Your task to perform on an android device: Go to Wikipedia Image 0: 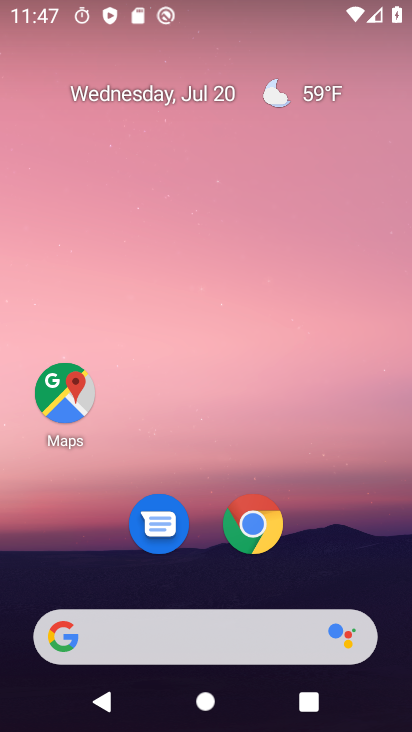
Step 0: press home button
Your task to perform on an android device: Go to Wikipedia Image 1: 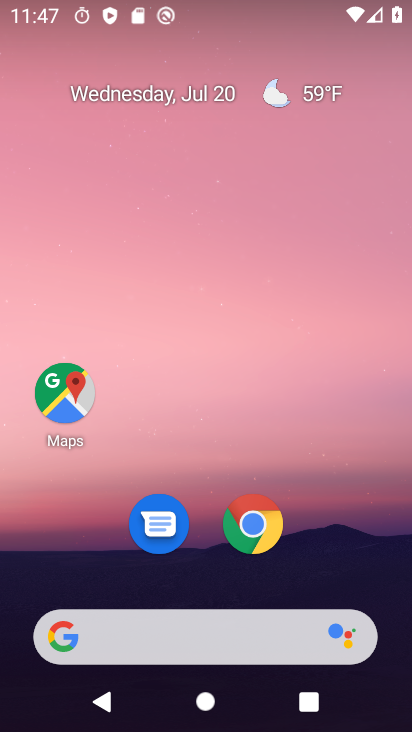
Step 1: press home button
Your task to perform on an android device: Go to Wikipedia Image 2: 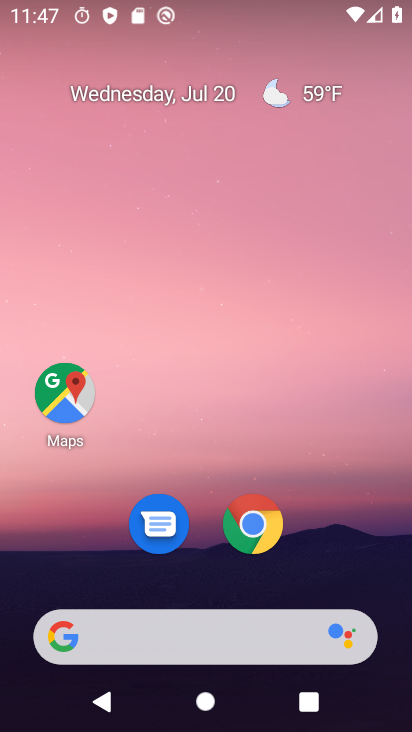
Step 2: click (250, 532)
Your task to perform on an android device: Go to Wikipedia Image 3: 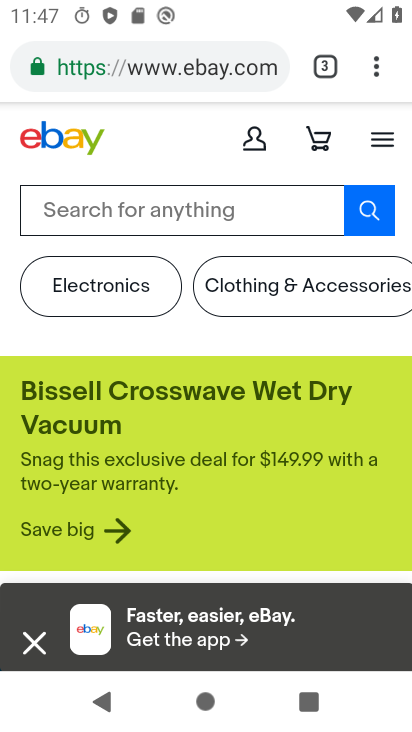
Step 3: drag from (374, 66) to (196, 125)
Your task to perform on an android device: Go to Wikipedia Image 4: 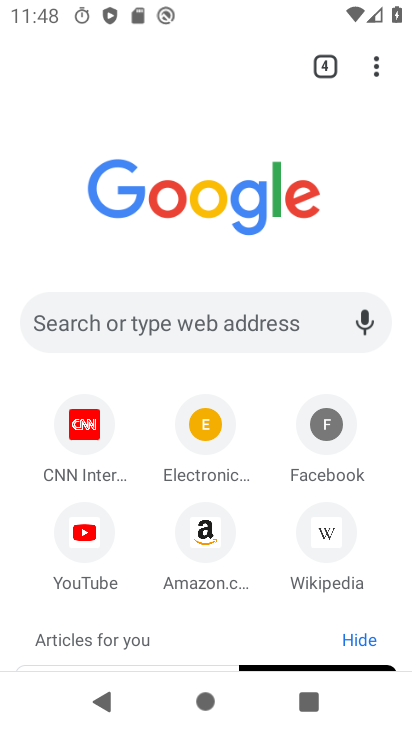
Step 4: click (325, 541)
Your task to perform on an android device: Go to Wikipedia Image 5: 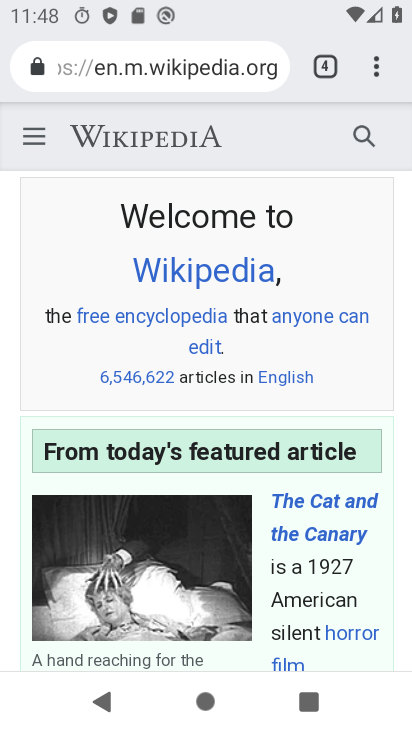
Step 5: task complete